Your task to perform on an android device: star an email in the gmail app Image 0: 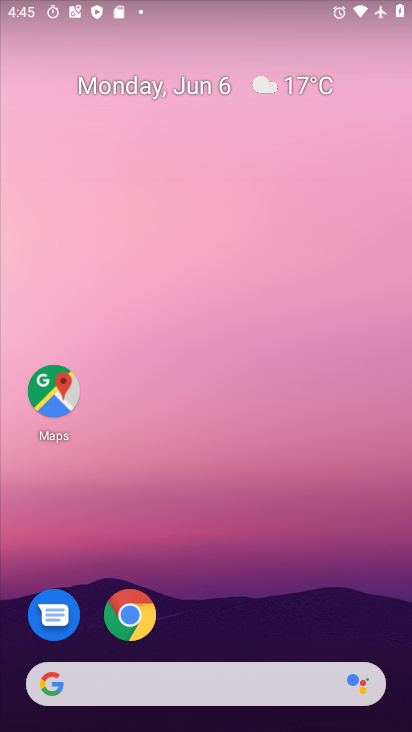
Step 0: drag from (204, 213) to (202, 34)
Your task to perform on an android device: star an email in the gmail app Image 1: 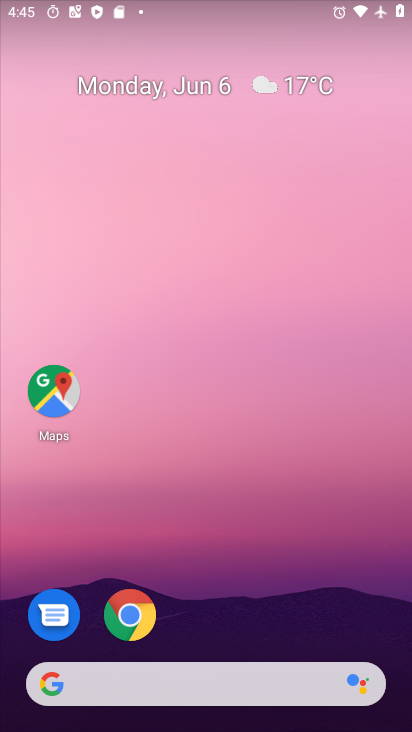
Step 1: drag from (201, 542) to (184, 39)
Your task to perform on an android device: star an email in the gmail app Image 2: 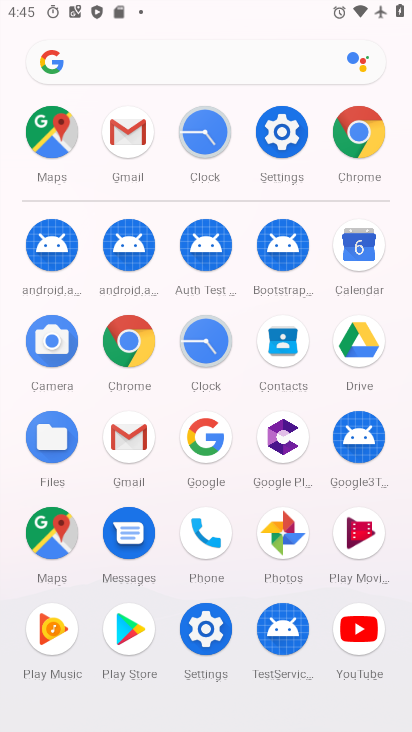
Step 2: drag from (8, 539) to (8, 221)
Your task to perform on an android device: star an email in the gmail app Image 3: 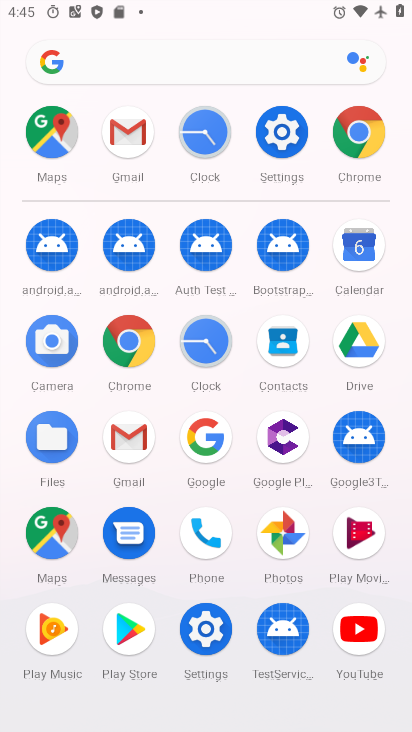
Step 3: click (128, 437)
Your task to perform on an android device: star an email in the gmail app Image 4: 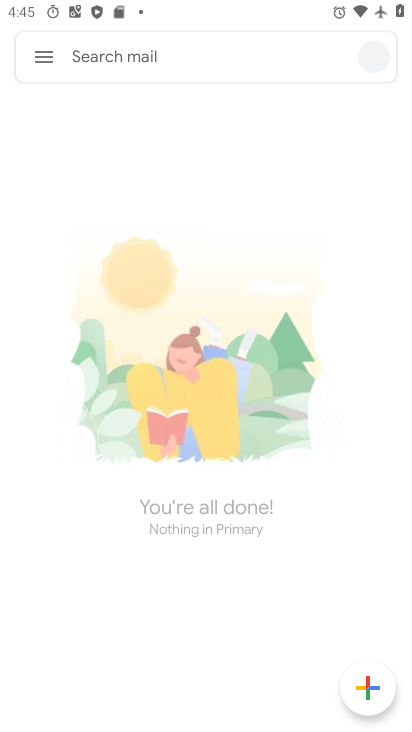
Step 4: click (50, 52)
Your task to perform on an android device: star an email in the gmail app Image 5: 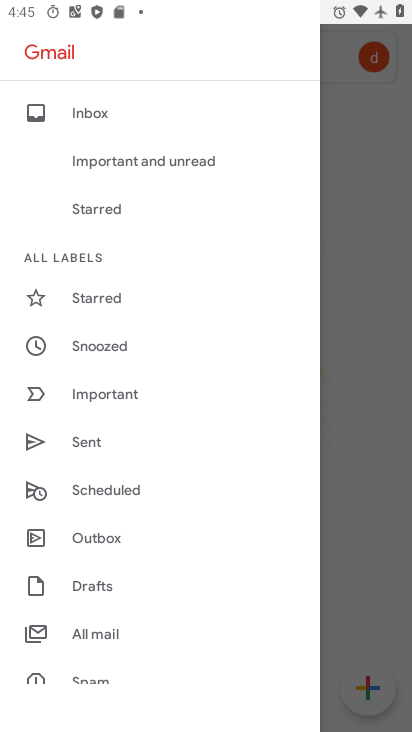
Step 5: click (102, 288)
Your task to perform on an android device: star an email in the gmail app Image 6: 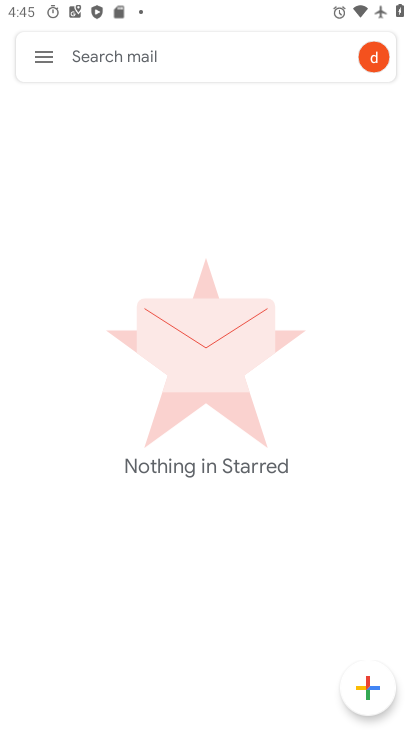
Step 6: task complete